Your task to perform on an android device: Go to CNN.com Image 0: 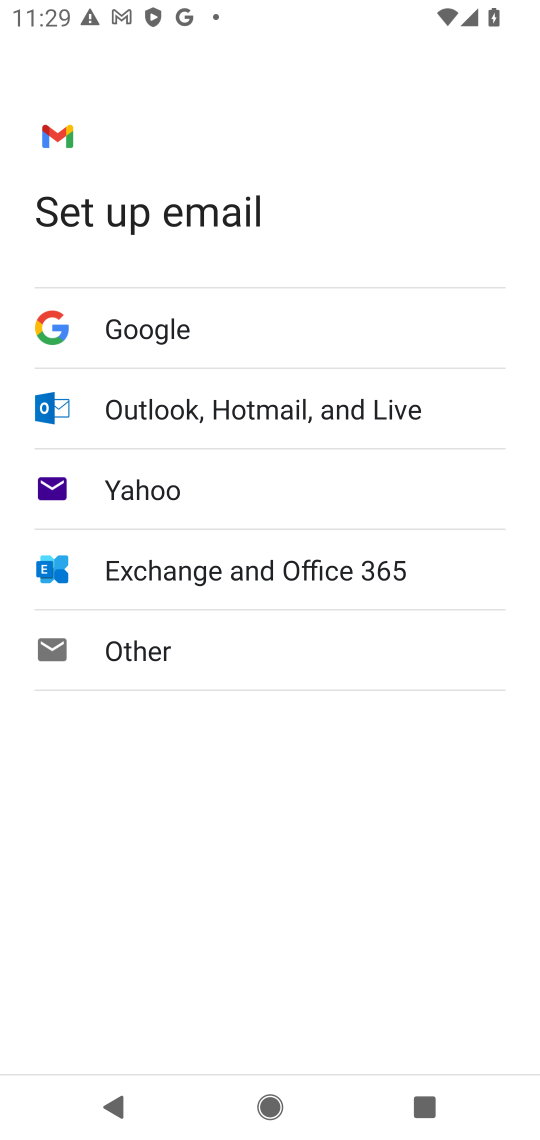
Step 0: press home button
Your task to perform on an android device: Go to CNN.com Image 1: 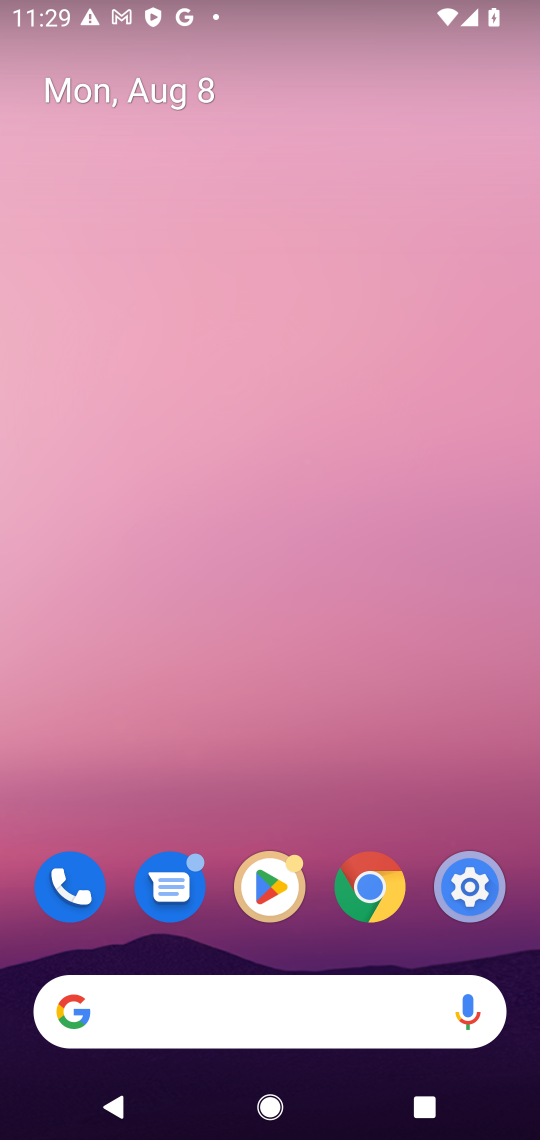
Step 1: click (374, 887)
Your task to perform on an android device: Go to CNN.com Image 2: 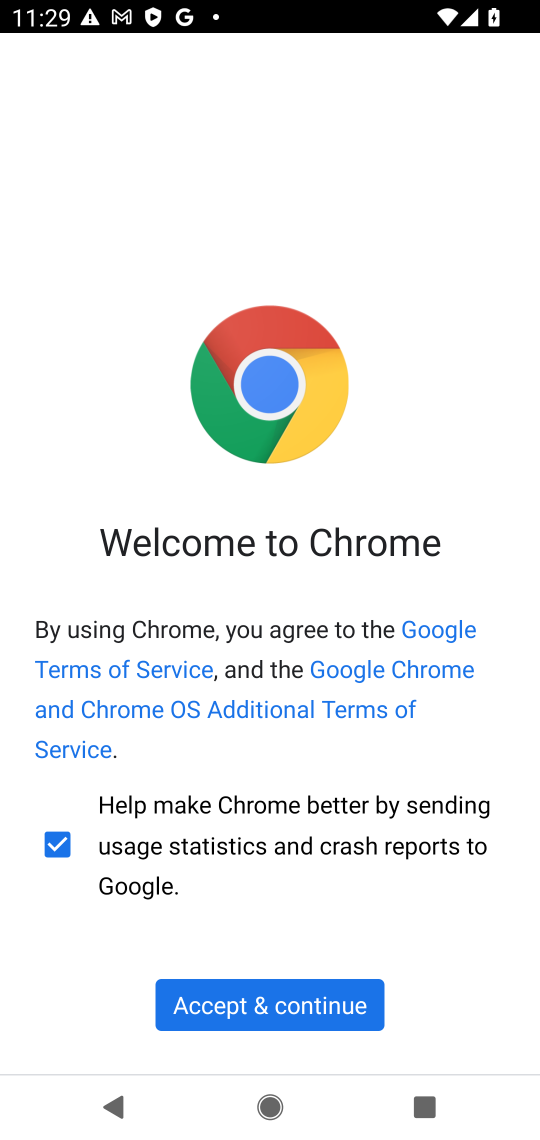
Step 2: click (308, 1006)
Your task to perform on an android device: Go to CNN.com Image 3: 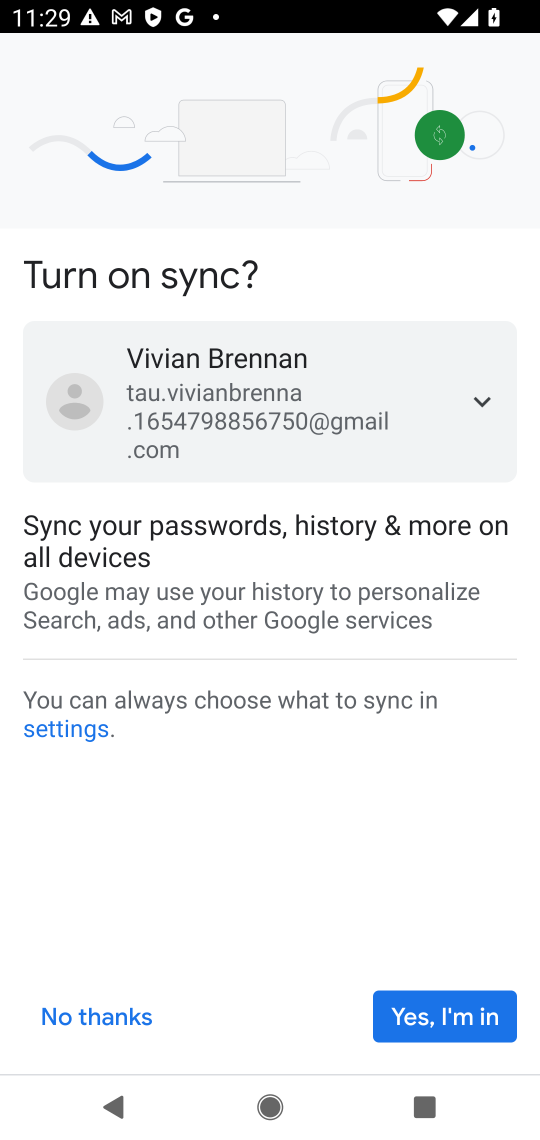
Step 3: click (453, 1017)
Your task to perform on an android device: Go to CNN.com Image 4: 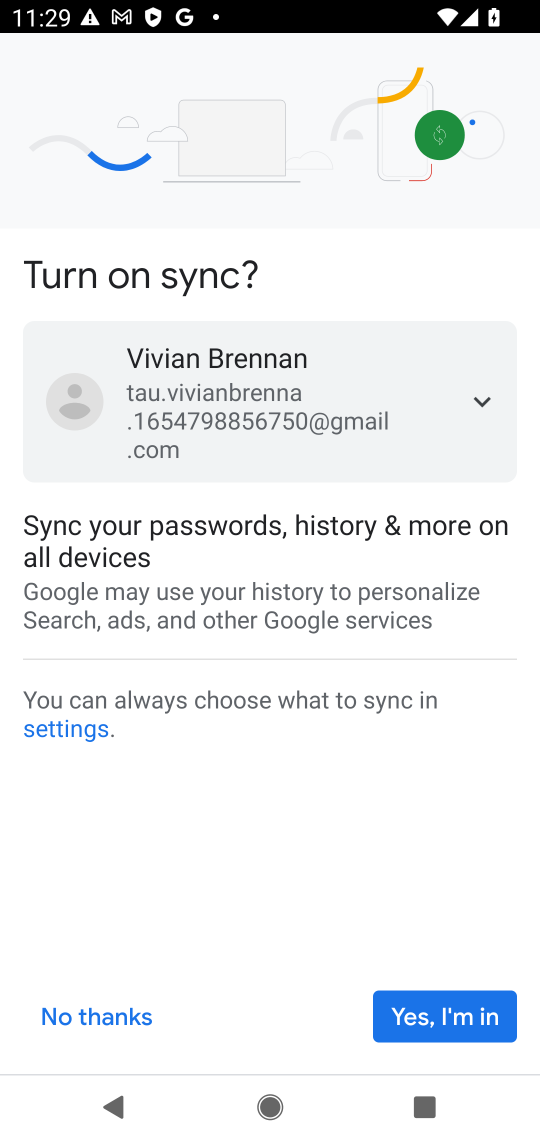
Step 4: click (436, 1017)
Your task to perform on an android device: Go to CNN.com Image 5: 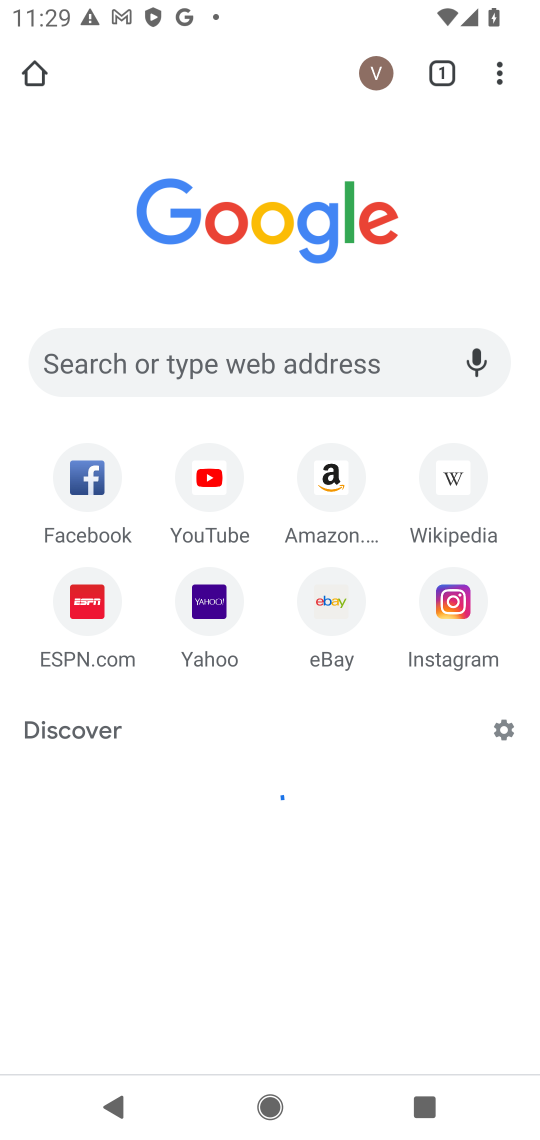
Step 5: click (247, 339)
Your task to perform on an android device: Go to CNN.com Image 6: 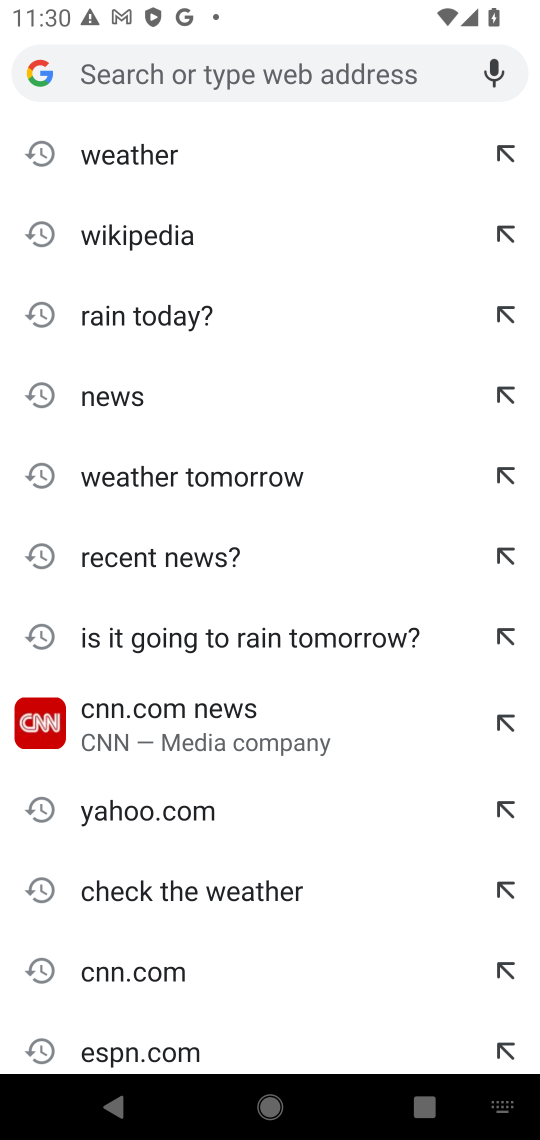
Step 6: click (172, 977)
Your task to perform on an android device: Go to CNN.com Image 7: 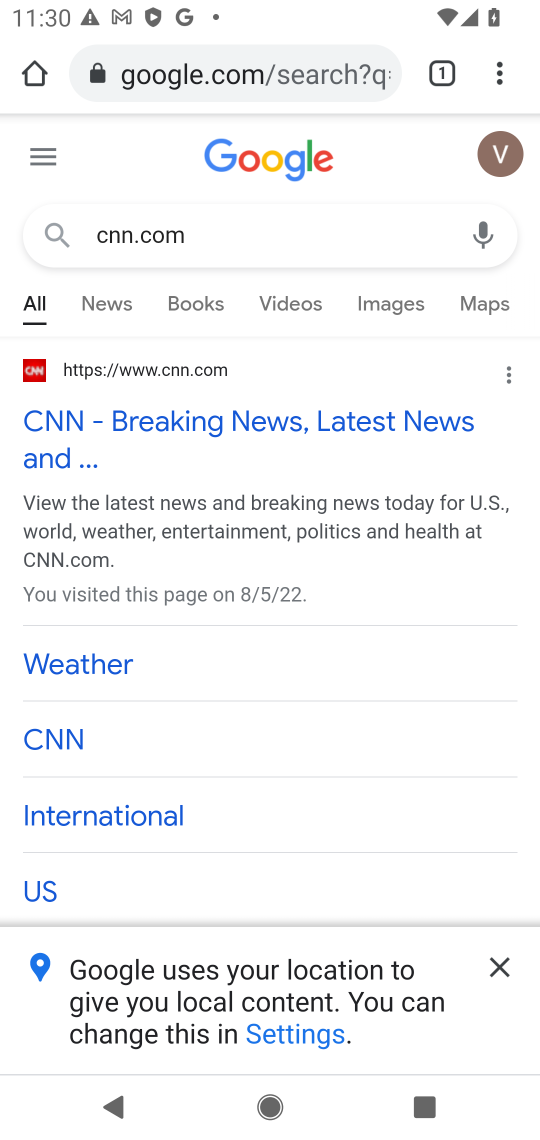
Step 7: click (273, 421)
Your task to perform on an android device: Go to CNN.com Image 8: 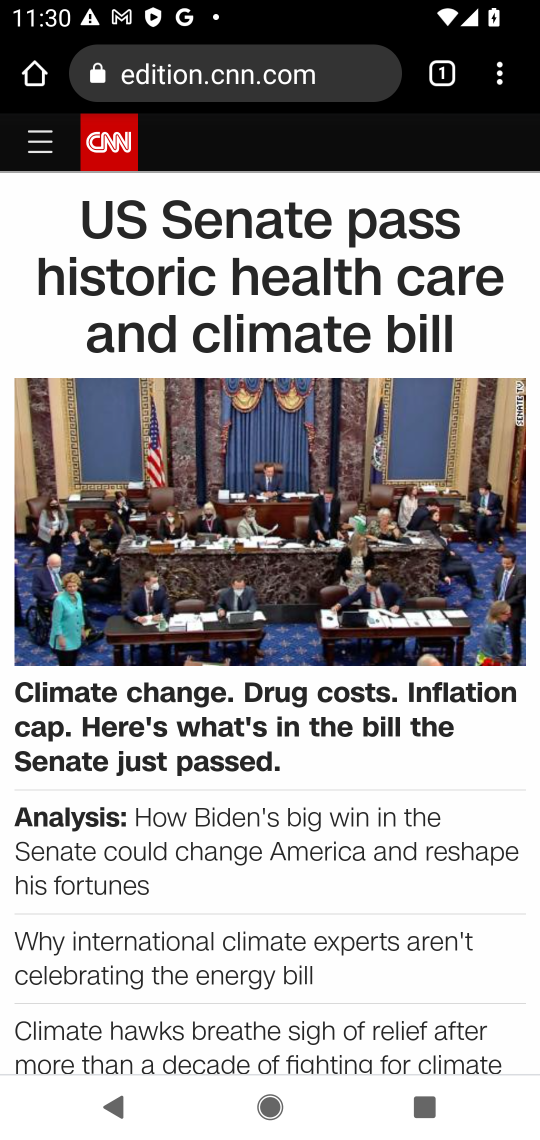
Step 8: task complete